Your task to perform on an android device: Do I have any events tomorrow? Image 0: 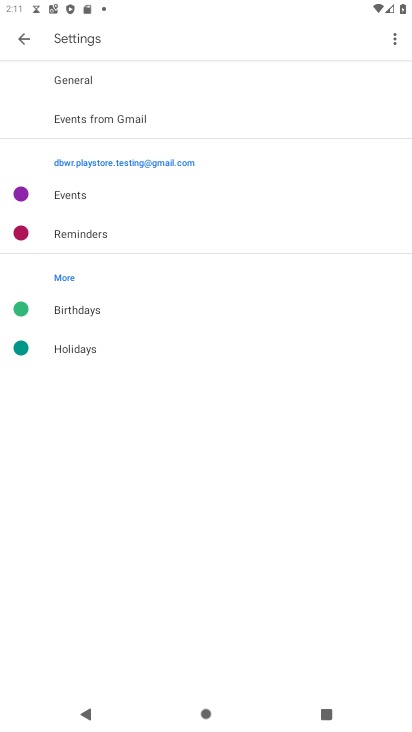
Step 0: press home button
Your task to perform on an android device: Do I have any events tomorrow? Image 1: 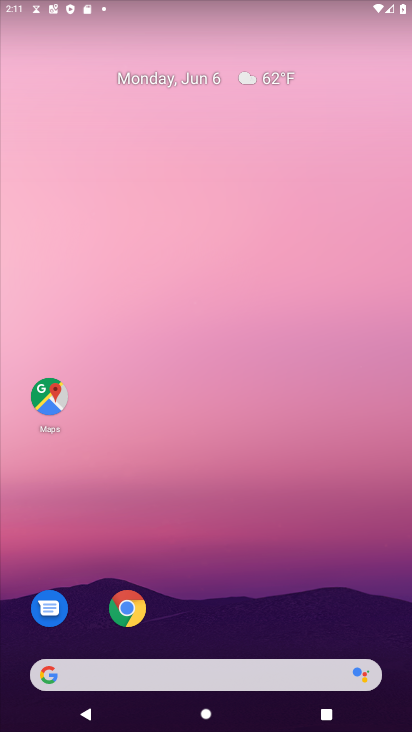
Step 1: drag from (253, 547) to (147, 6)
Your task to perform on an android device: Do I have any events tomorrow? Image 2: 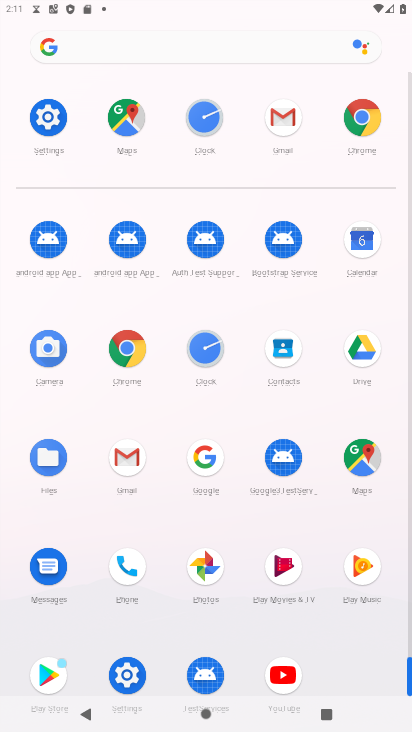
Step 2: click (346, 245)
Your task to perform on an android device: Do I have any events tomorrow? Image 3: 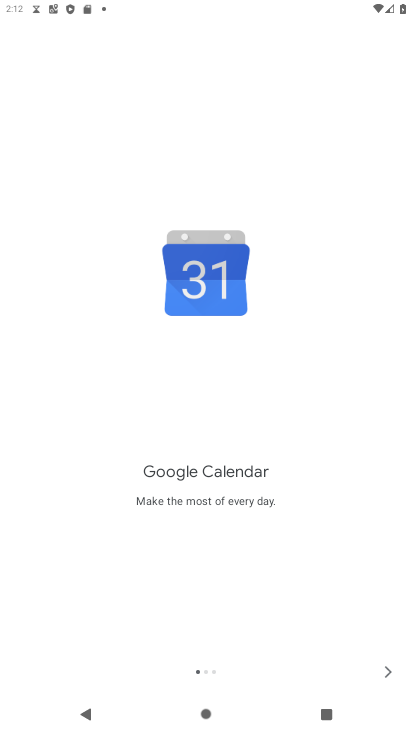
Step 3: click (378, 670)
Your task to perform on an android device: Do I have any events tomorrow? Image 4: 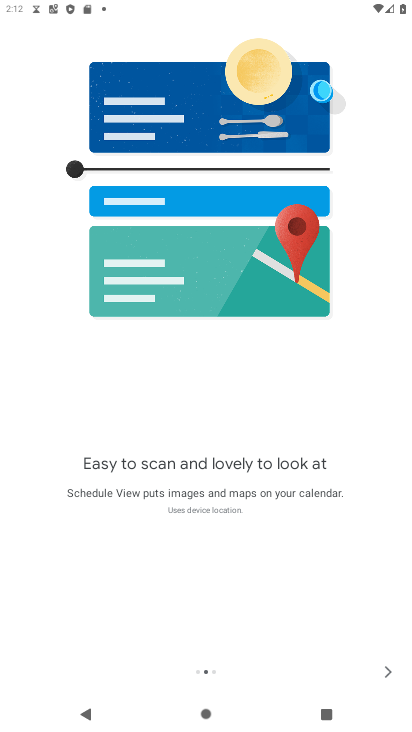
Step 4: click (385, 674)
Your task to perform on an android device: Do I have any events tomorrow? Image 5: 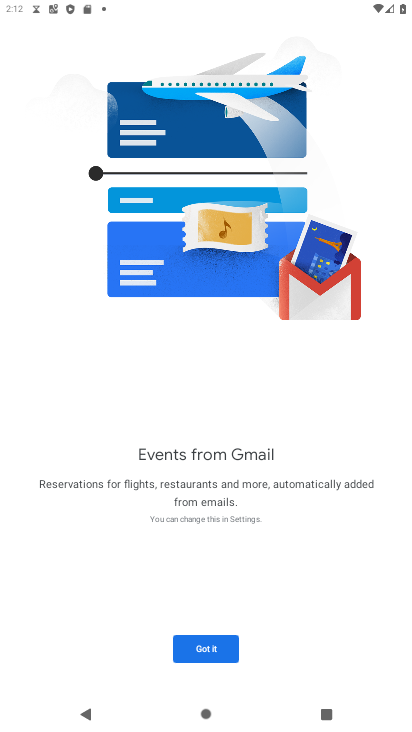
Step 5: click (210, 643)
Your task to perform on an android device: Do I have any events tomorrow? Image 6: 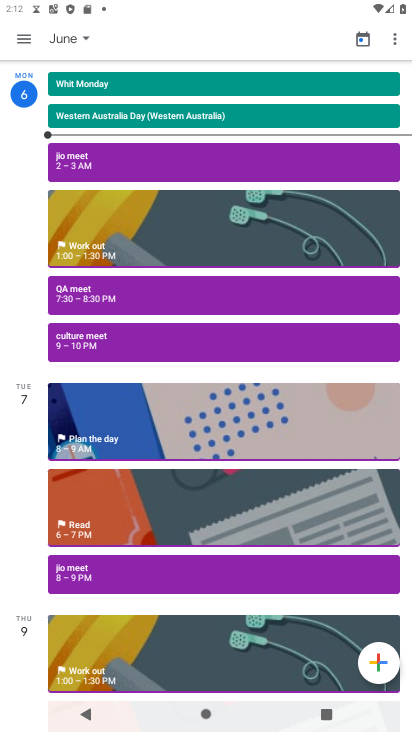
Step 6: click (61, 31)
Your task to perform on an android device: Do I have any events tomorrow? Image 7: 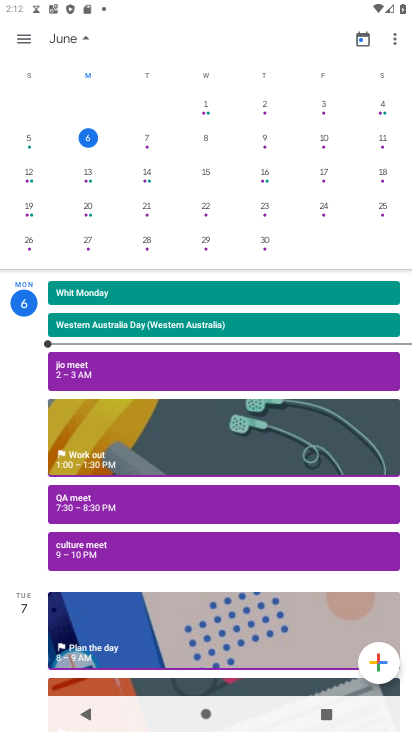
Step 7: click (137, 138)
Your task to perform on an android device: Do I have any events tomorrow? Image 8: 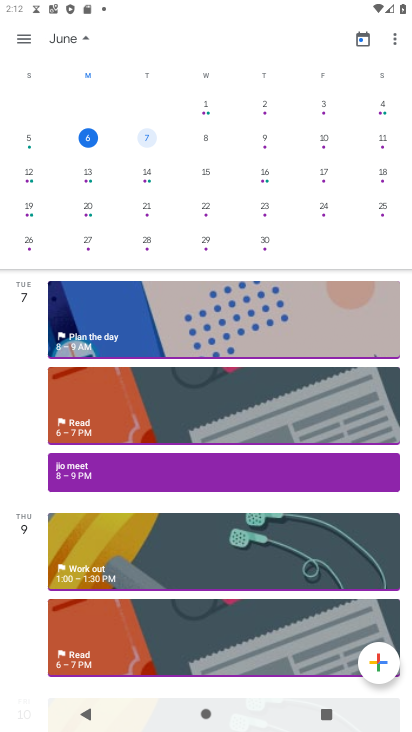
Step 8: task complete